Your task to perform on an android device: open a new tab in the chrome app Image 0: 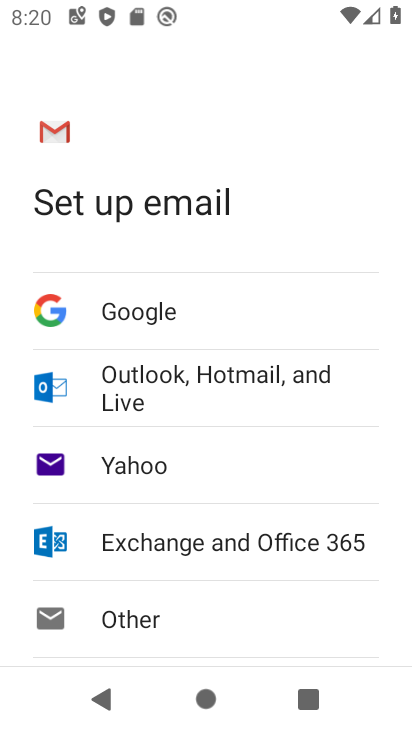
Step 0: press home button
Your task to perform on an android device: open a new tab in the chrome app Image 1: 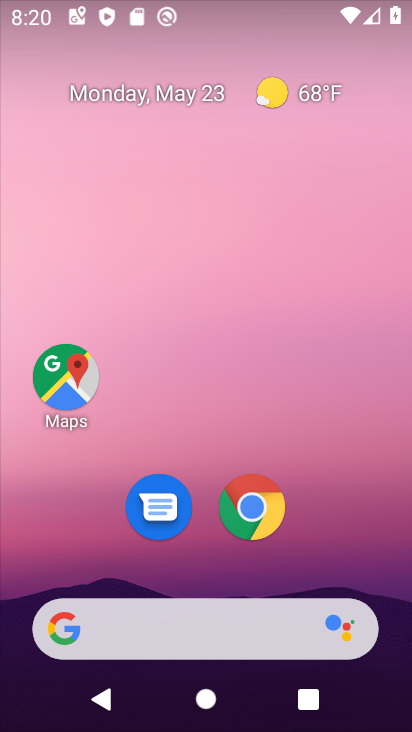
Step 1: click (255, 522)
Your task to perform on an android device: open a new tab in the chrome app Image 2: 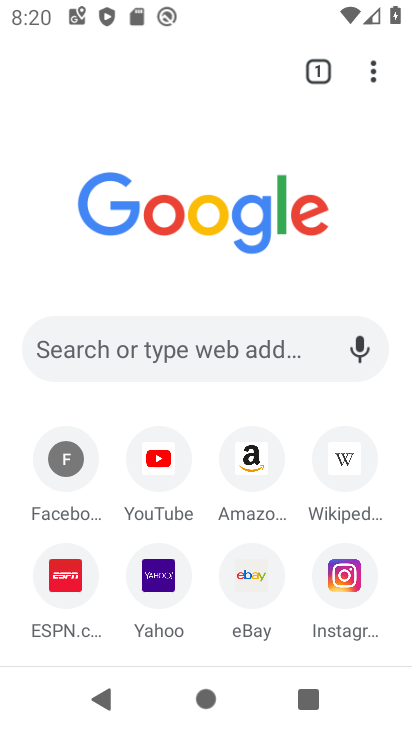
Step 2: drag from (264, 49) to (259, 181)
Your task to perform on an android device: open a new tab in the chrome app Image 3: 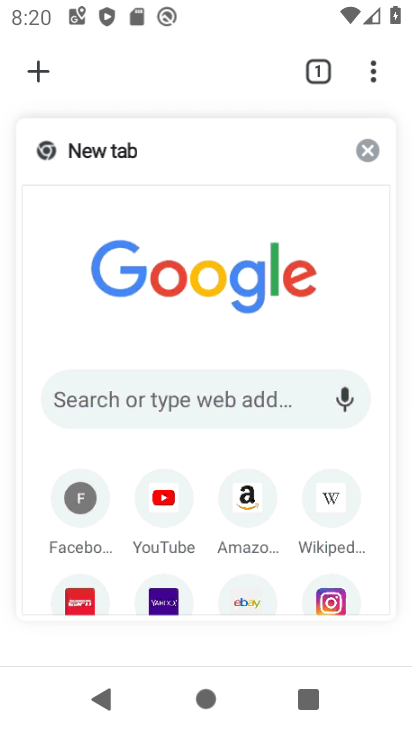
Step 3: click (35, 72)
Your task to perform on an android device: open a new tab in the chrome app Image 4: 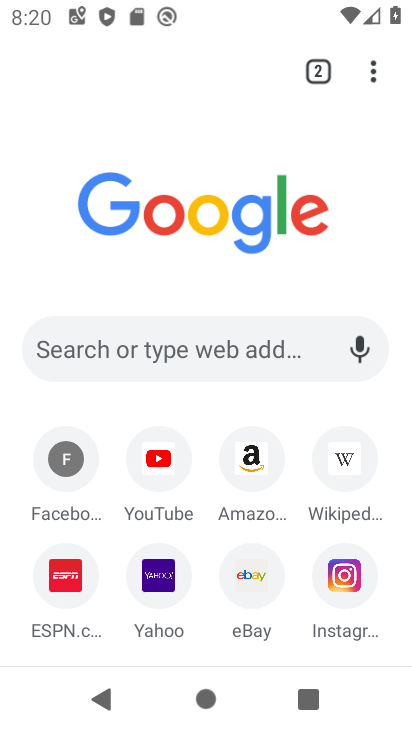
Step 4: task complete